Your task to perform on an android device: Search for vegetarian restaurants on Maps Image 0: 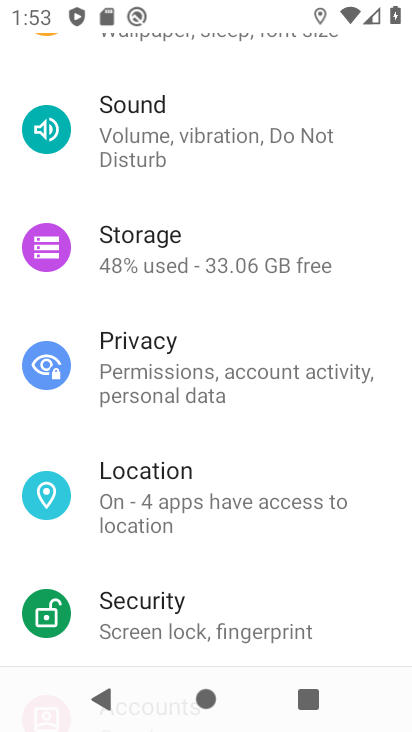
Step 0: press home button
Your task to perform on an android device: Search for vegetarian restaurants on Maps Image 1: 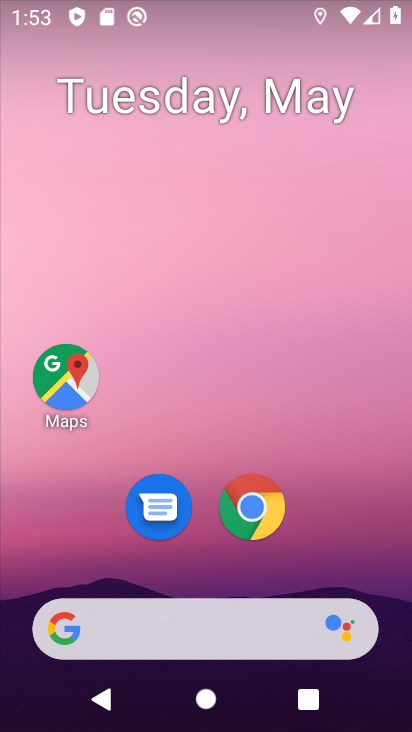
Step 1: click (57, 378)
Your task to perform on an android device: Search for vegetarian restaurants on Maps Image 2: 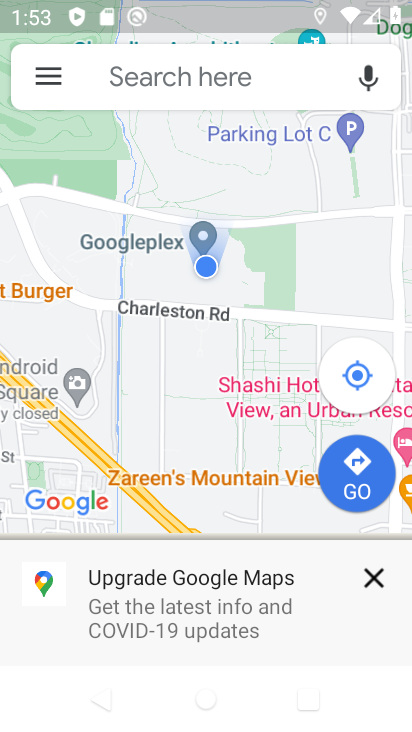
Step 2: click (164, 79)
Your task to perform on an android device: Search for vegetarian restaurants on Maps Image 3: 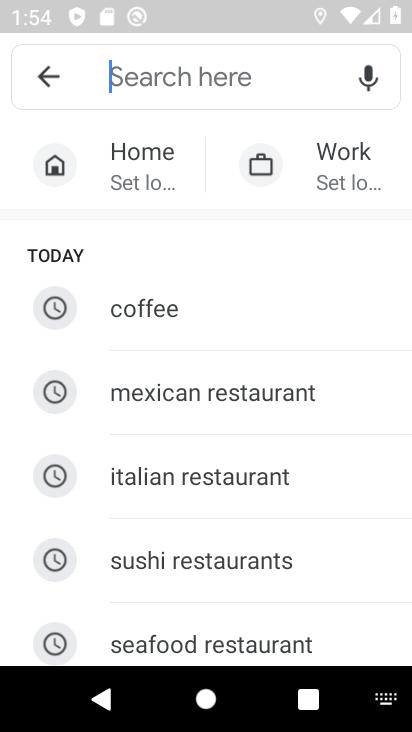
Step 3: type "vegetarian restaurant"
Your task to perform on an android device: Search for vegetarian restaurants on Maps Image 4: 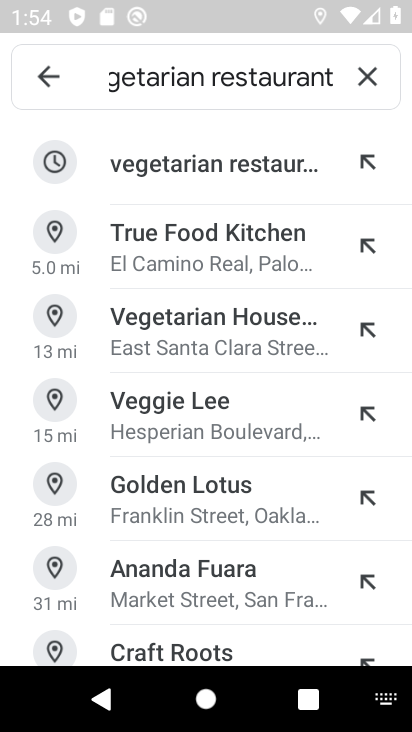
Step 4: click (228, 162)
Your task to perform on an android device: Search for vegetarian restaurants on Maps Image 5: 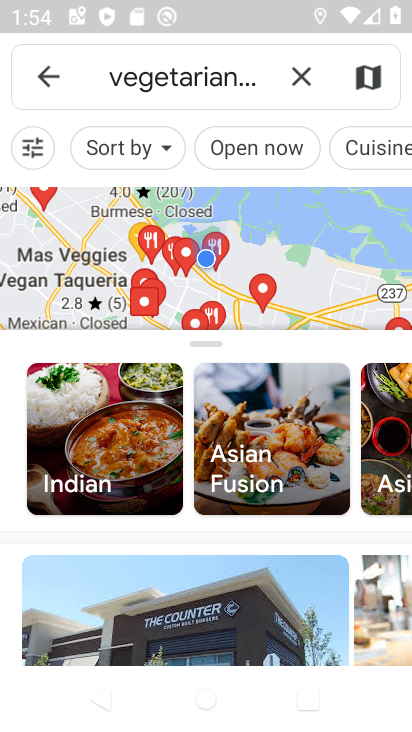
Step 5: task complete